Your task to perform on an android device: turn on location history Image 0: 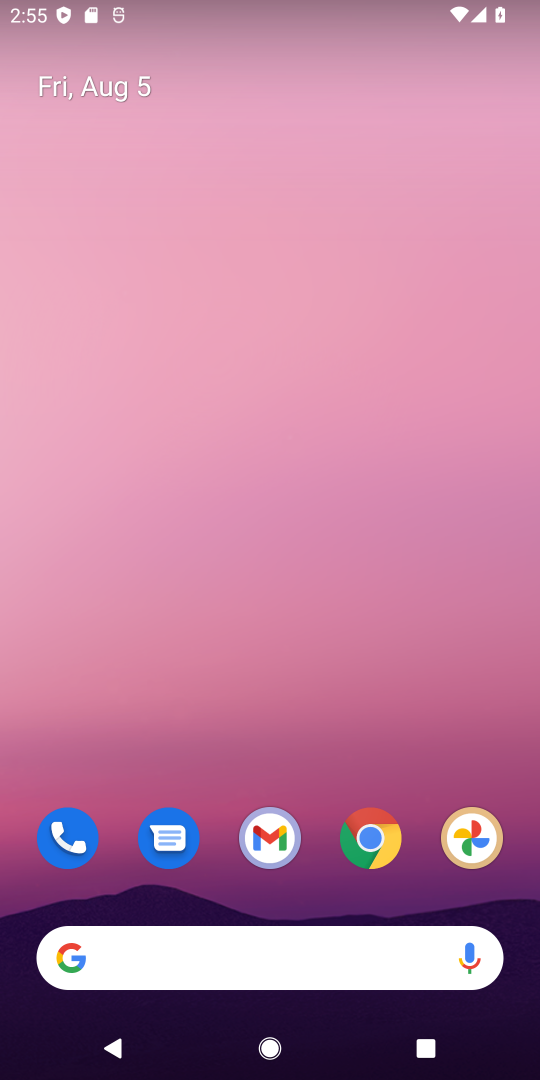
Step 0: drag from (324, 902) to (322, 451)
Your task to perform on an android device: turn on location history Image 1: 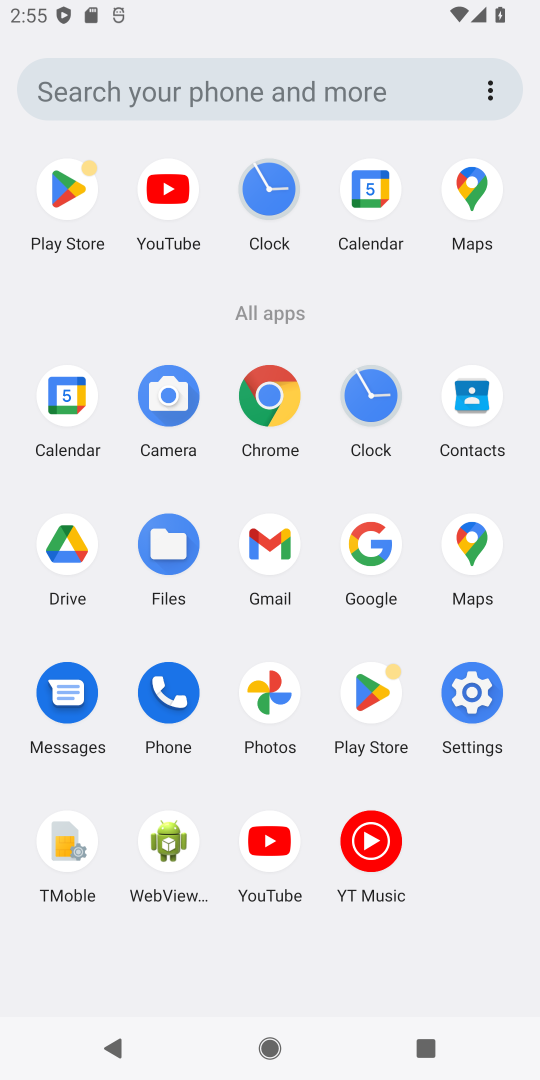
Step 1: click (465, 554)
Your task to perform on an android device: turn on location history Image 2: 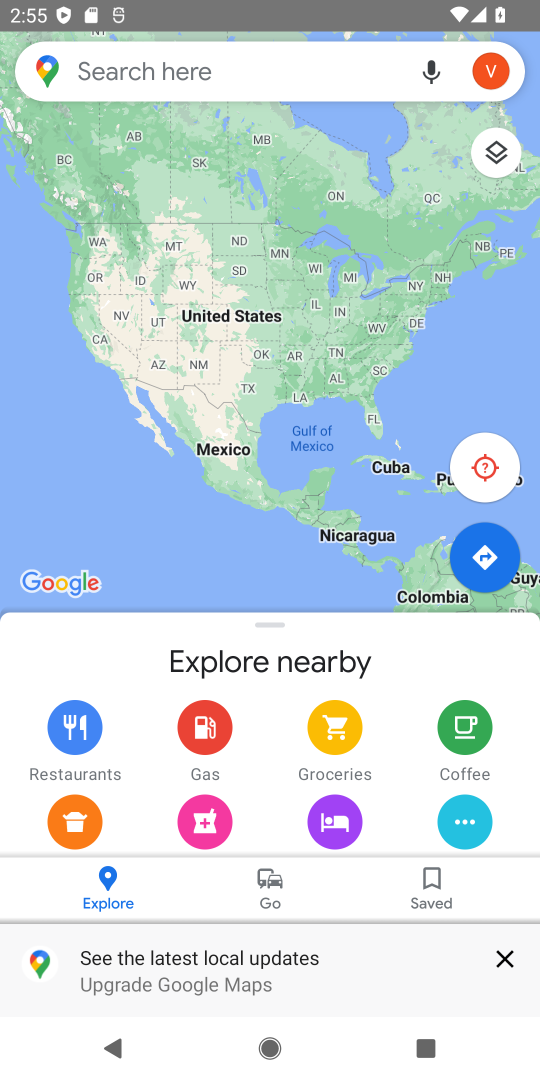
Step 2: click (485, 67)
Your task to perform on an android device: turn on location history Image 3: 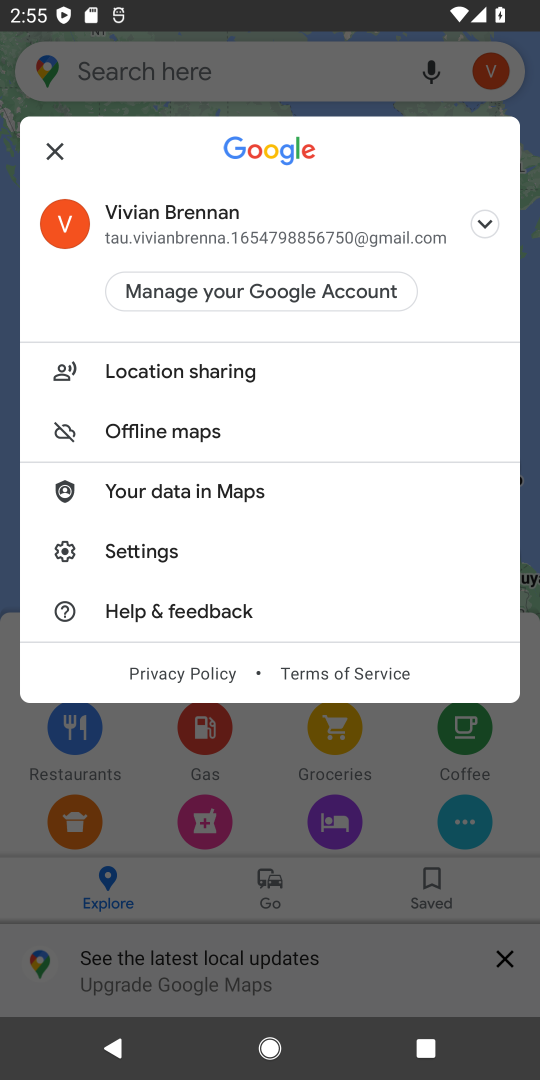
Step 3: click (175, 545)
Your task to perform on an android device: turn on location history Image 4: 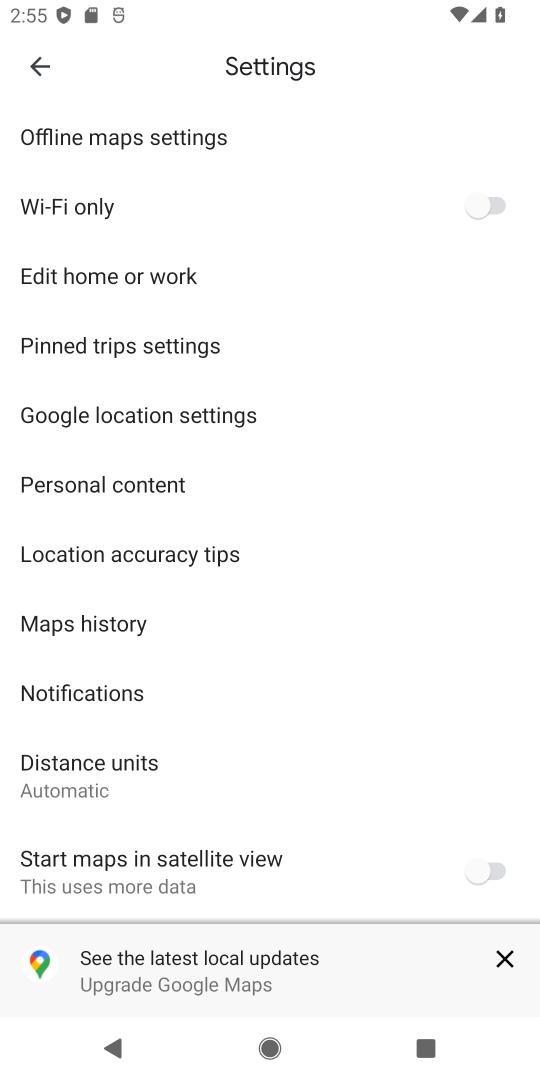
Step 4: drag from (320, 707) to (260, 239)
Your task to perform on an android device: turn on location history Image 5: 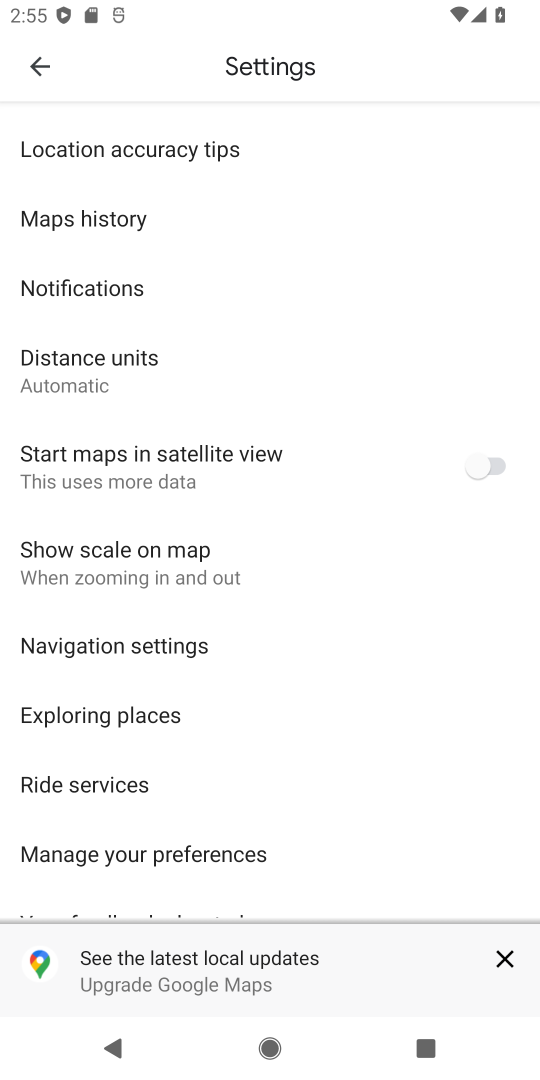
Step 5: drag from (377, 768) to (289, 282)
Your task to perform on an android device: turn on location history Image 6: 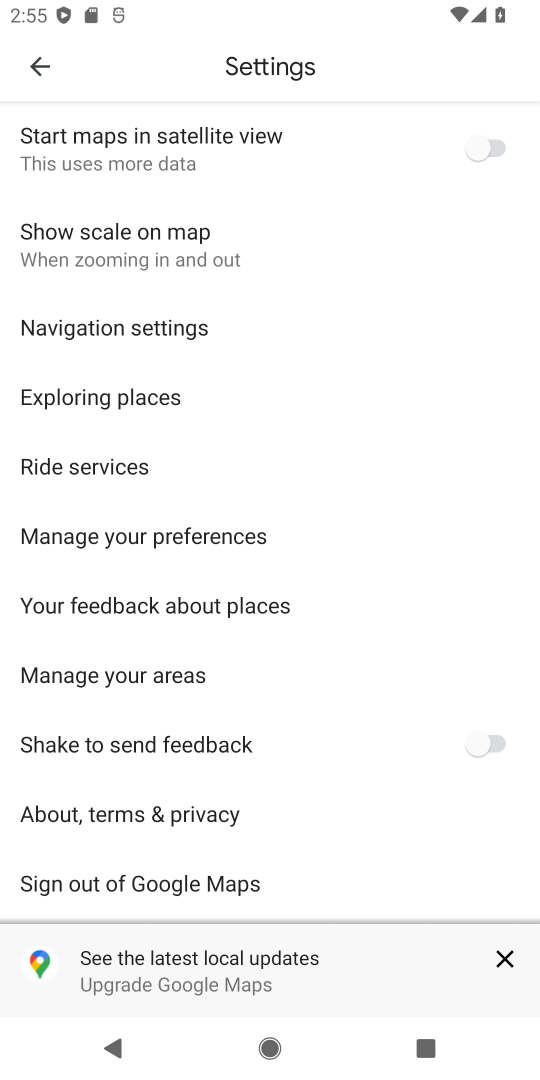
Step 6: click (507, 960)
Your task to perform on an android device: turn on location history Image 7: 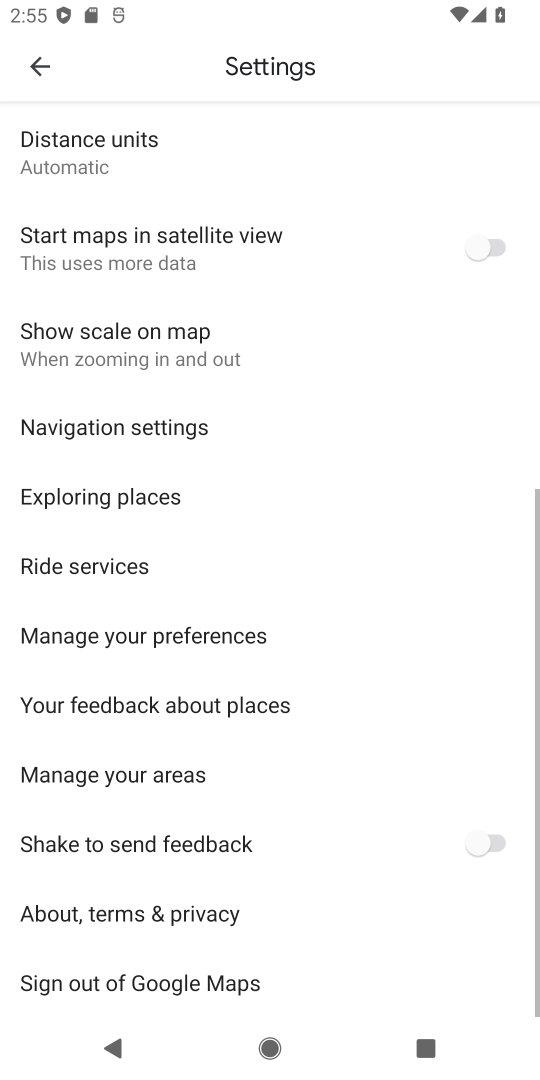
Step 7: task complete